Your task to perform on an android device: clear history in the chrome app Image 0: 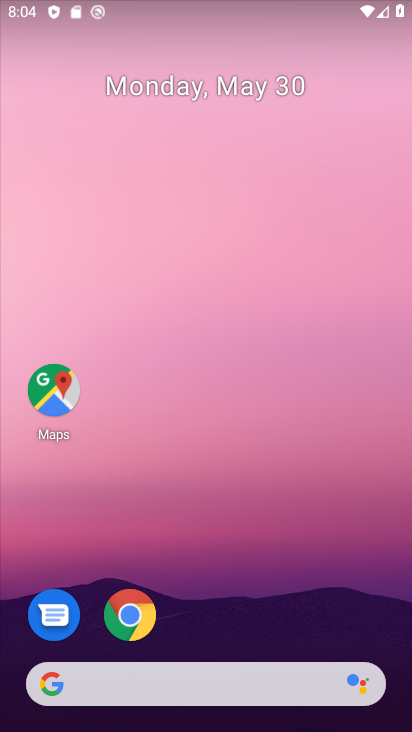
Step 0: press home button
Your task to perform on an android device: clear history in the chrome app Image 1: 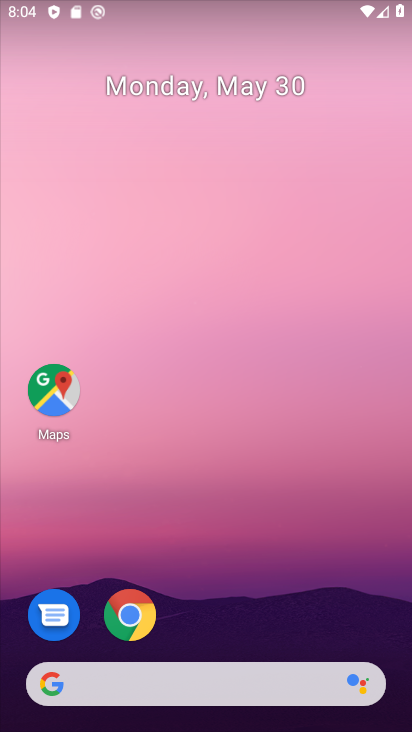
Step 1: click (125, 605)
Your task to perform on an android device: clear history in the chrome app Image 2: 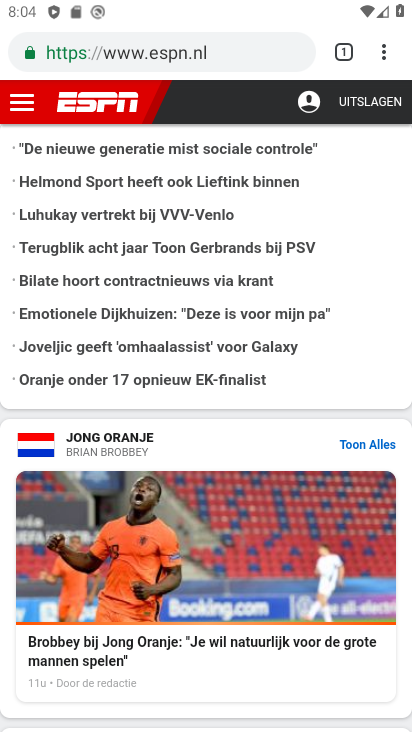
Step 2: click (383, 44)
Your task to perform on an android device: clear history in the chrome app Image 3: 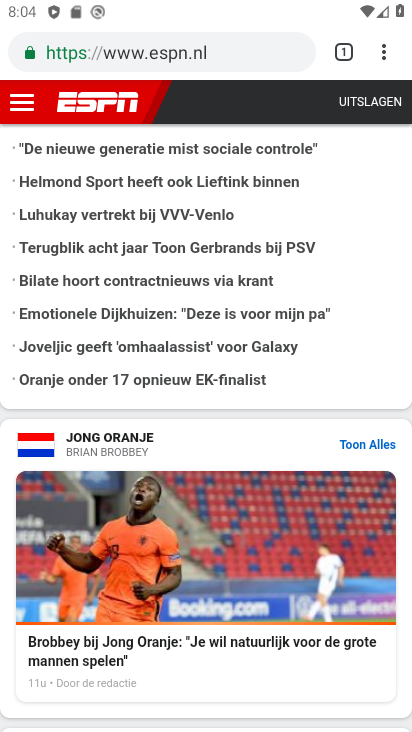
Step 3: click (383, 52)
Your task to perform on an android device: clear history in the chrome app Image 4: 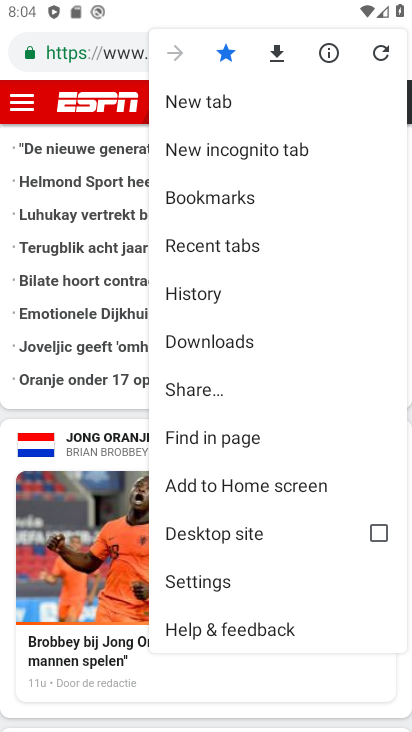
Step 4: click (228, 295)
Your task to perform on an android device: clear history in the chrome app Image 5: 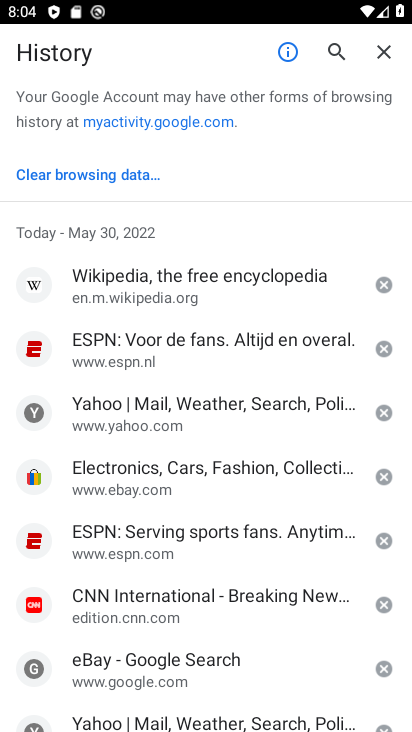
Step 5: click (103, 175)
Your task to perform on an android device: clear history in the chrome app Image 6: 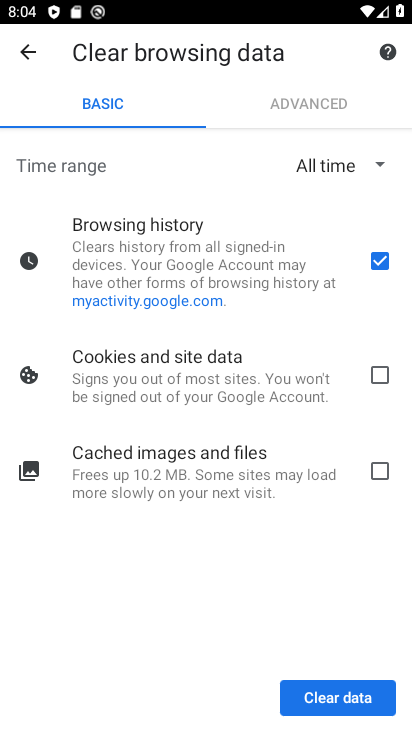
Step 6: click (377, 363)
Your task to perform on an android device: clear history in the chrome app Image 7: 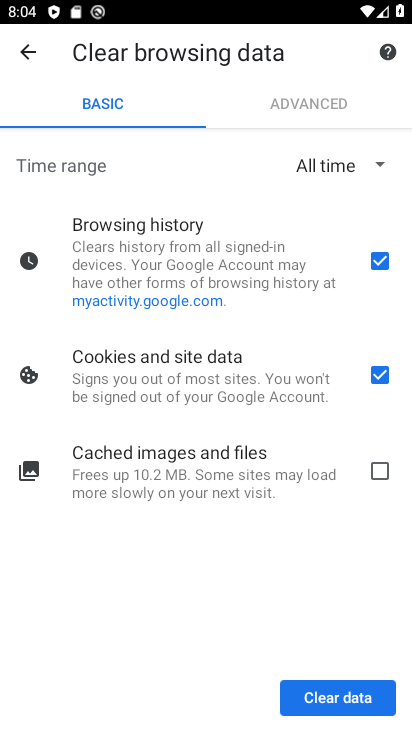
Step 7: click (387, 470)
Your task to perform on an android device: clear history in the chrome app Image 8: 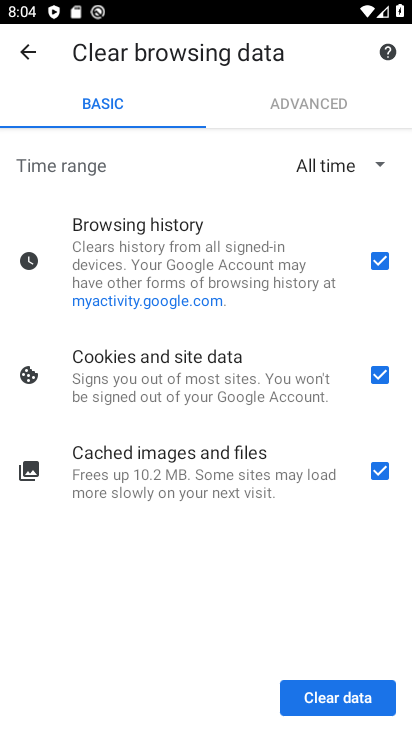
Step 8: click (337, 698)
Your task to perform on an android device: clear history in the chrome app Image 9: 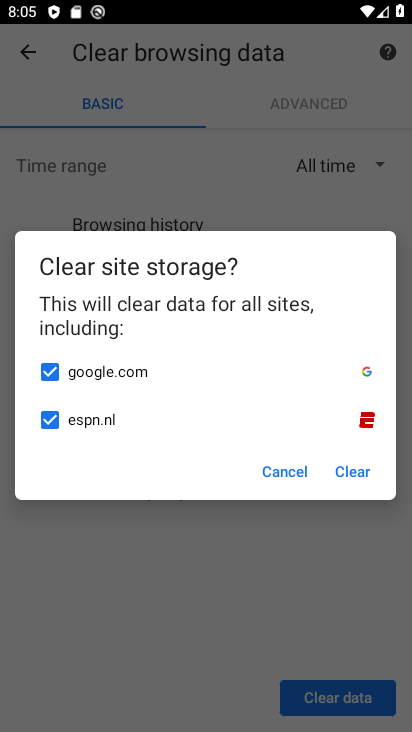
Step 9: click (353, 471)
Your task to perform on an android device: clear history in the chrome app Image 10: 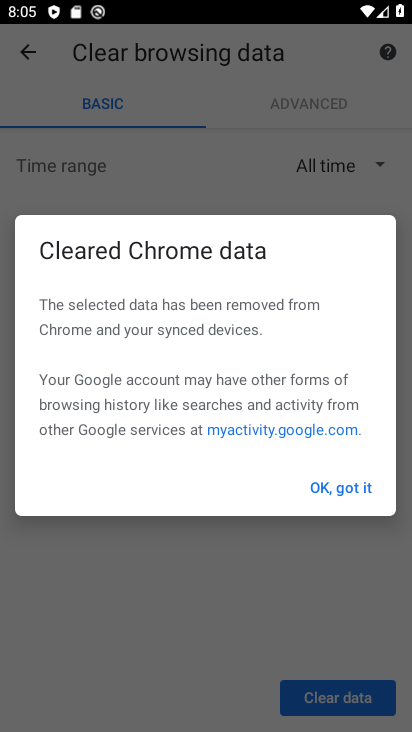
Step 10: click (353, 485)
Your task to perform on an android device: clear history in the chrome app Image 11: 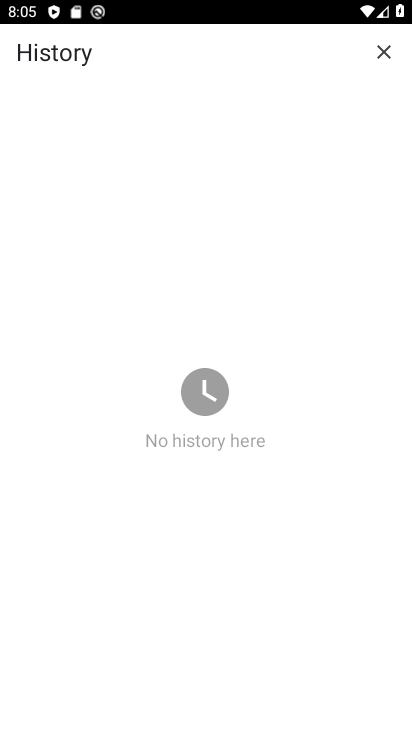
Step 11: task complete